Your task to perform on an android device: What's the weather? Image 0: 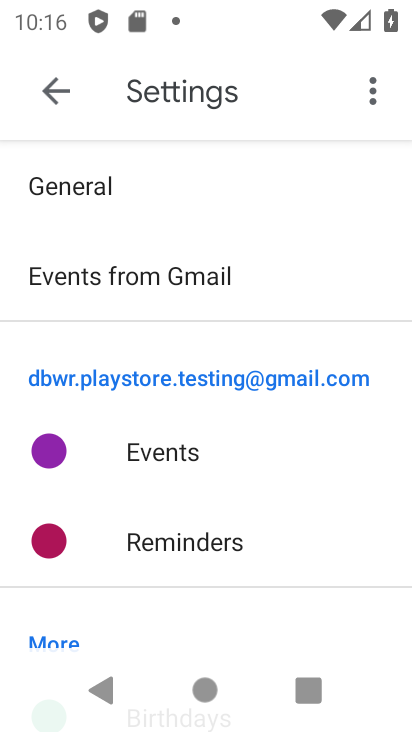
Step 0: press home button
Your task to perform on an android device: What's the weather? Image 1: 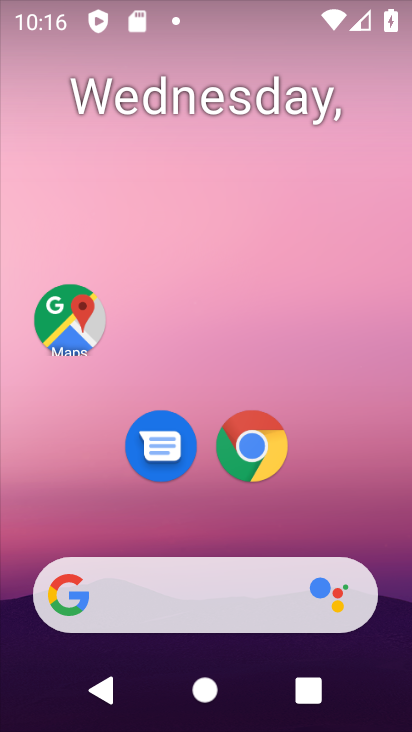
Step 1: click (173, 610)
Your task to perform on an android device: What's the weather? Image 2: 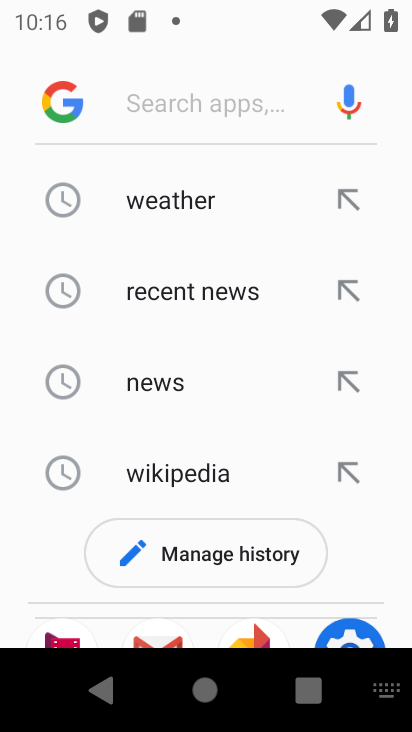
Step 2: click (240, 208)
Your task to perform on an android device: What's the weather? Image 3: 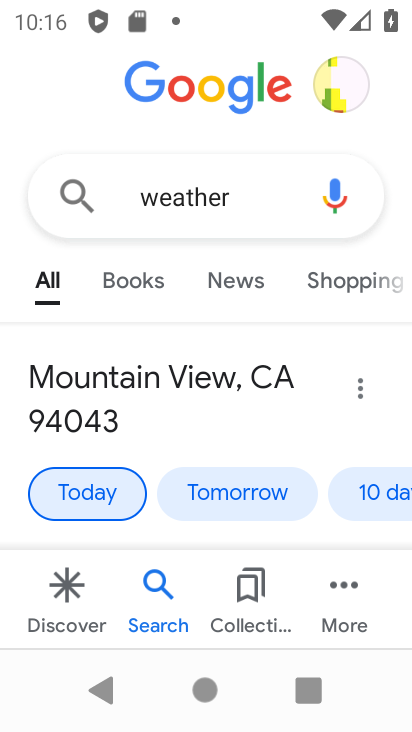
Step 3: task complete